Your task to perform on an android device: Turn on the flashlight Image 0: 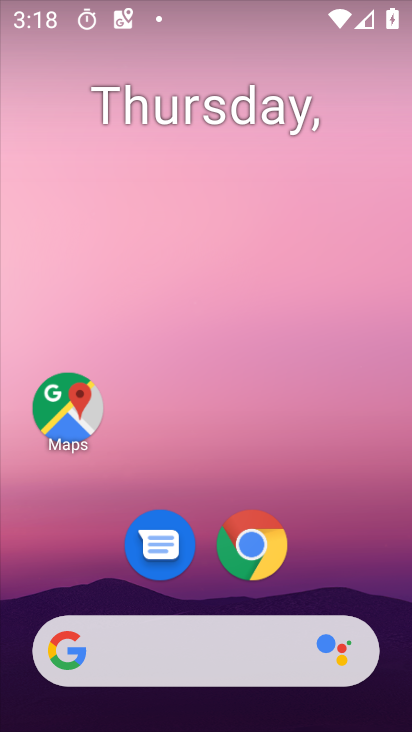
Step 0: drag from (160, 727) to (161, 163)
Your task to perform on an android device: Turn on the flashlight Image 1: 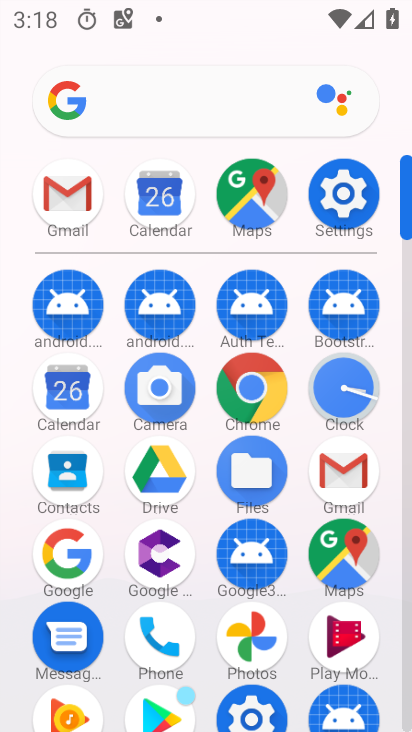
Step 1: click (346, 190)
Your task to perform on an android device: Turn on the flashlight Image 2: 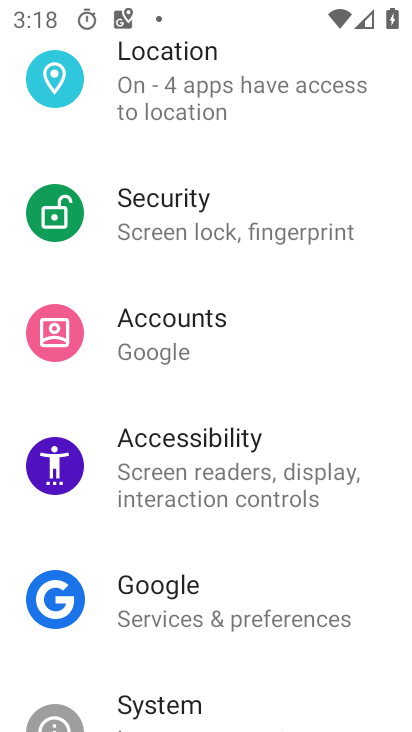
Step 2: task complete